Your task to perform on an android device: add a label to a message in the gmail app Image 0: 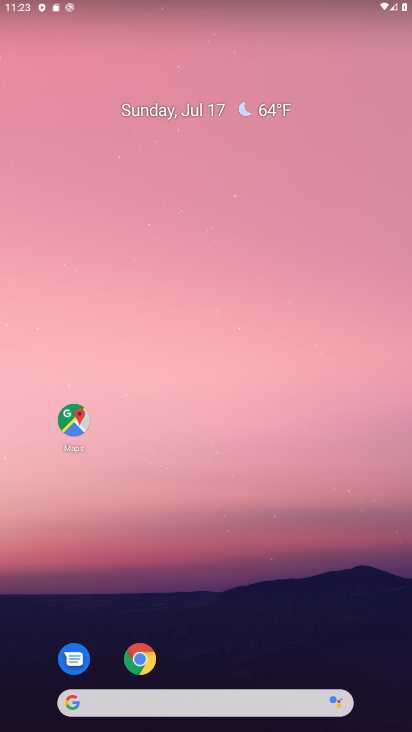
Step 0: press home button
Your task to perform on an android device: add a label to a message in the gmail app Image 1: 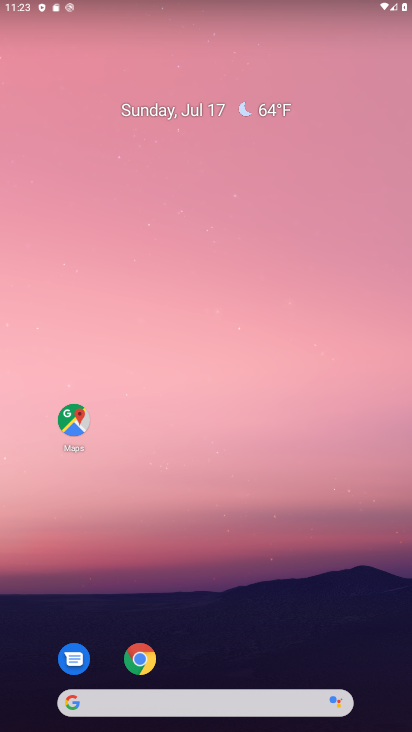
Step 1: drag from (249, 623) to (259, 34)
Your task to perform on an android device: add a label to a message in the gmail app Image 2: 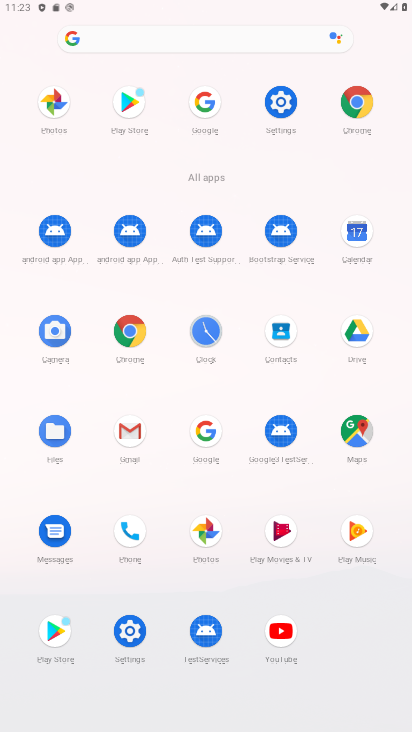
Step 2: click (128, 436)
Your task to perform on an android device: add a label to a message in the gmail app Image 3: 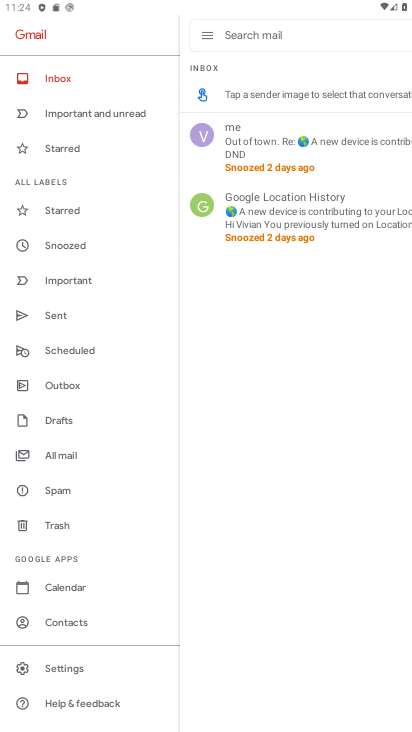
Step 3: click (203, 135)
Your task to perform on an android device: add a label to a message in the gmail app Image 4: 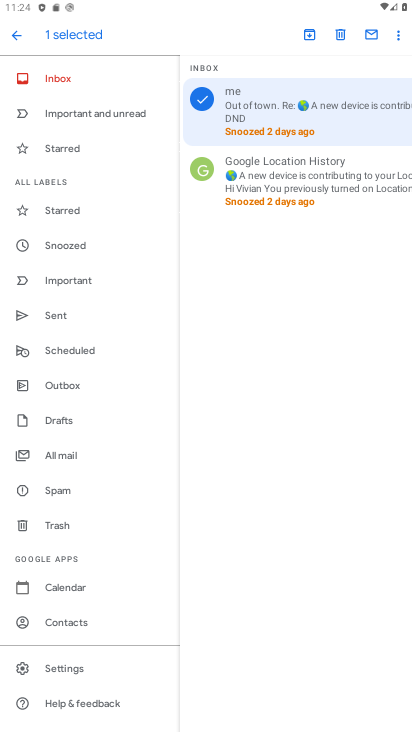
Step 4: click (399, 33)
Your task to perform on an android device: add a label to a message in the gmail app Image 5: 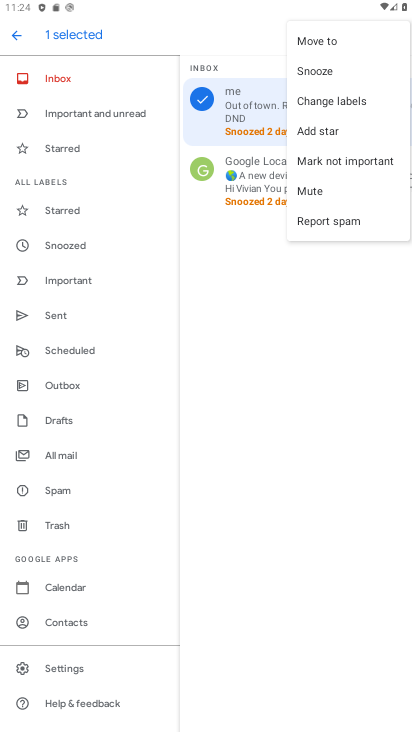
Step 5: click (324, 96)
Your task to perform on an android device: add a label to a message in the gmail app Image 6: 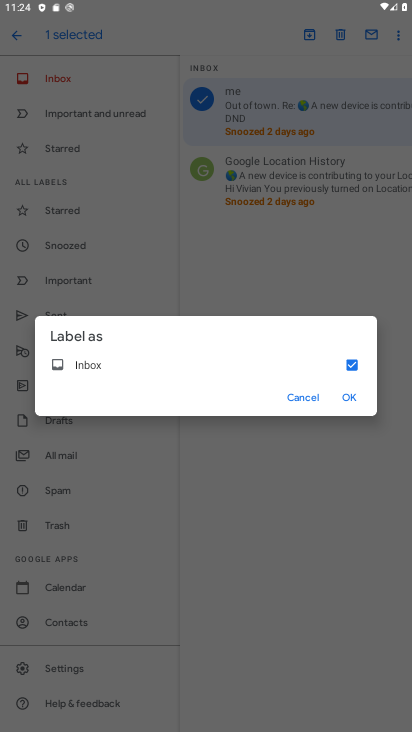
Step 6: click (346, 398)
Your task to perform on an android device: add a label to a message in the gmail app Image 7: 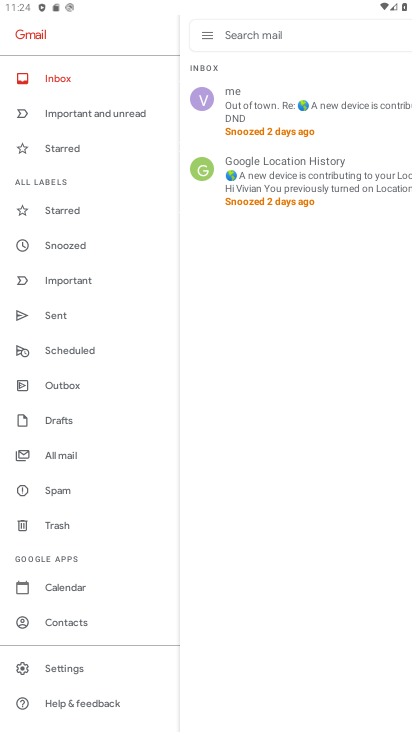
Step 7: task complete